Your task to perform on an android device: Search for Mexican restaurants on Maps Image 0: 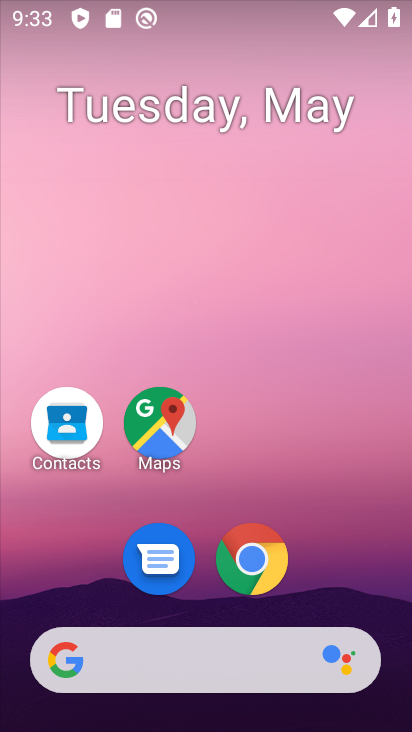
Step 0: click (184, 431)
Your task to perform on an android device: Search for Mexican restaurants on Maps Image 1: 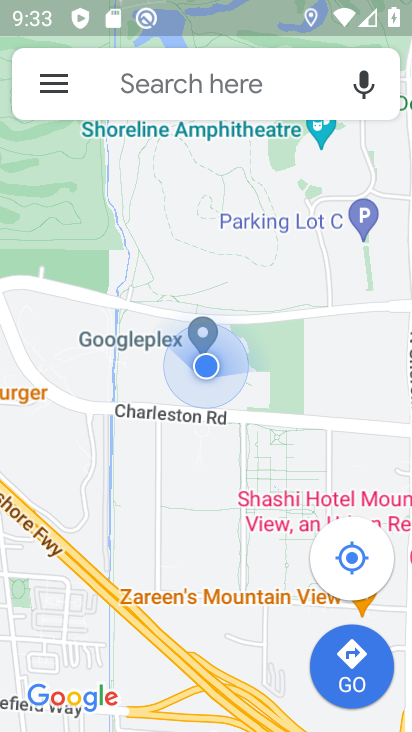
Step 1: click (139, 65)
Your task to perform on an android device: Search for Mexican restaurants on Maps Image 2: 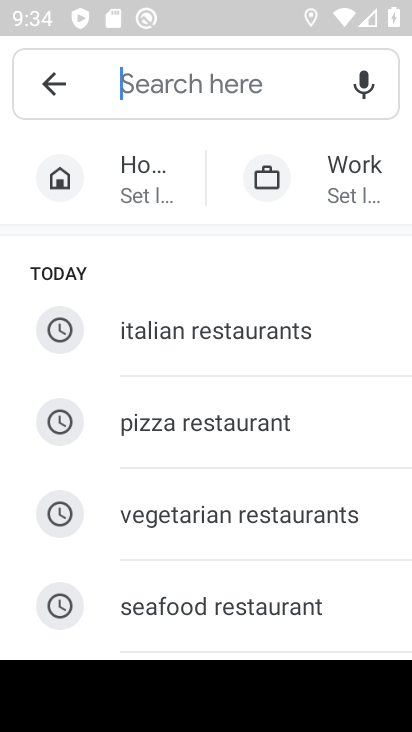
Step 2: type "mexicn"
Your task to perform on an android device: Search for Mexican restaurants on Maps Image 3: 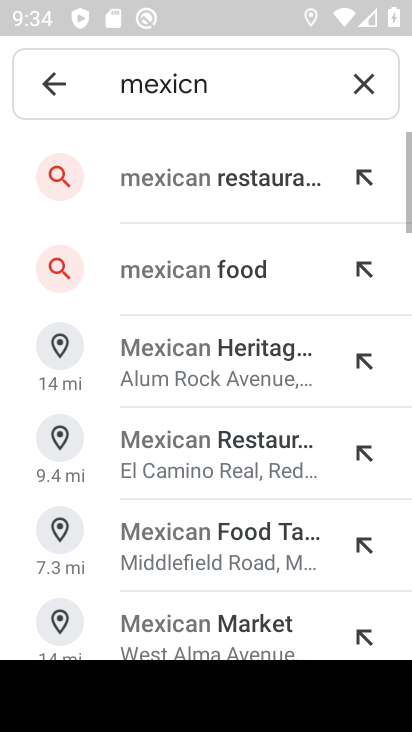
Step 3: click (237, 196)
Your task to perform on an android device: Search for Mexican restaurants on Maps Image 4: 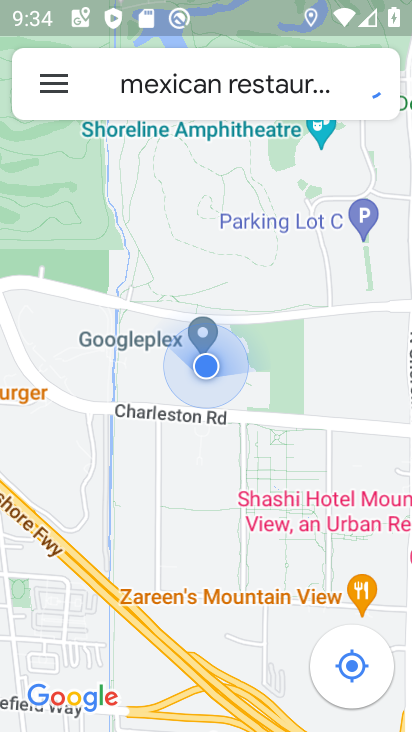
Step 4: task complete